Your task to perform on an android device: change the clock display to analog Image 0: 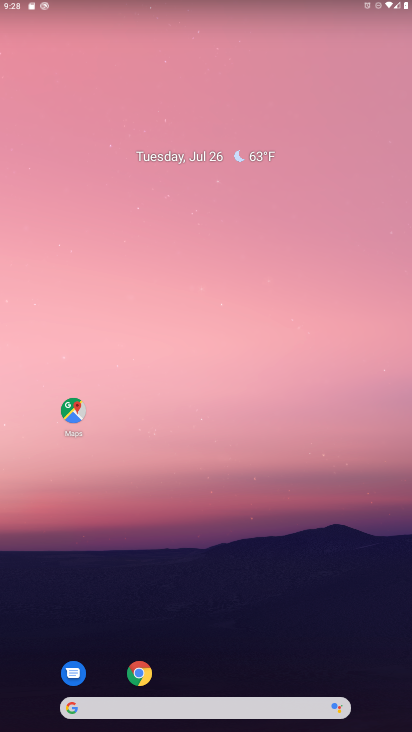
Step 0: drag from (332, 632) to (168, 64)
Your task to perform on an android device: change the clock display to analog Image 1: 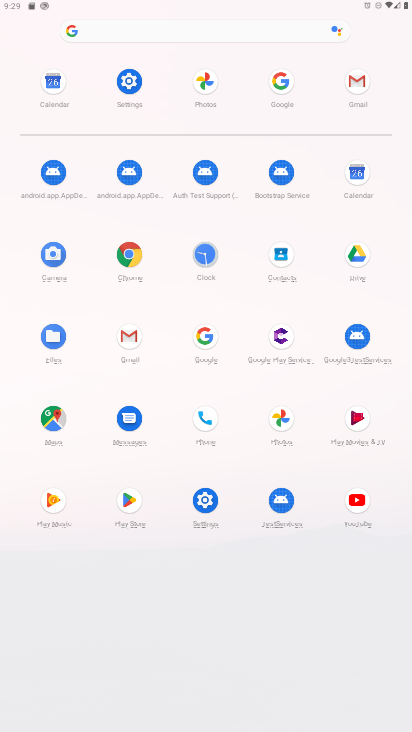
Step 1: click (208, 263)
Your task to perform on an android device: change the clock display to analog Image 2: 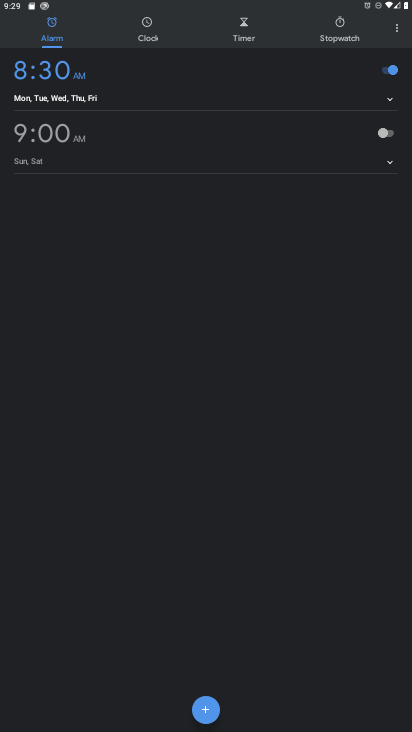
Step 2: click (392, 36)
Your task to perform on an android device: change the clock display to analog Image 3: 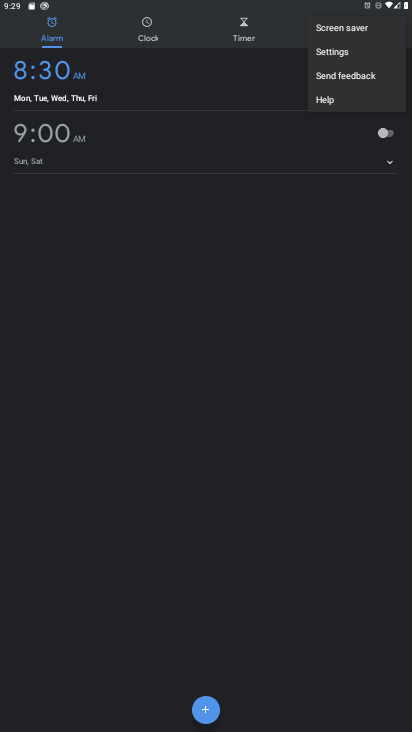
Step 3: click (350, 57)
Your task to perform on an android device: change the clock display to analog Image 4: 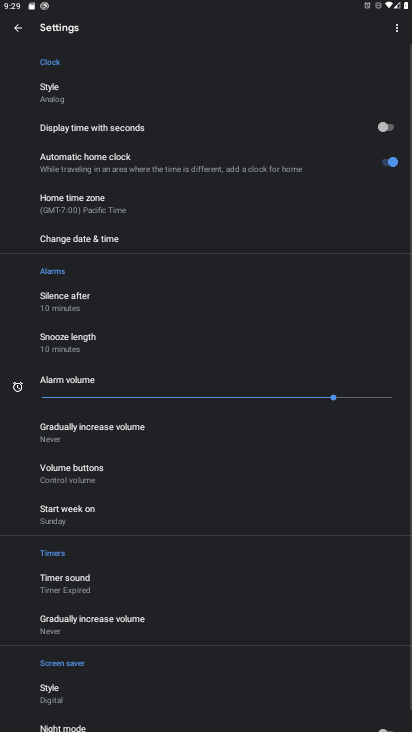
Step 4: click (65, 104)
Your task to perform on an android device: change the clock display to analog Image 5: 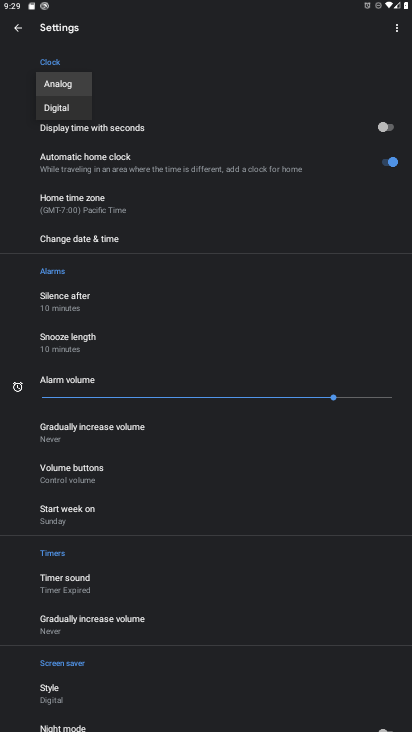
Step 5: click (70, 85)
Your task to perform on an android device: change the clock display to analog Image 6: 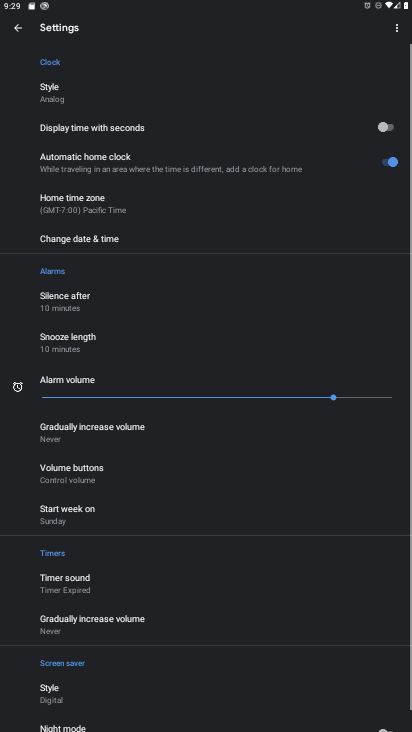
Step 6: task complete